Your task to perform on an android device: Search for sushi restaurants on Maps Image 0: 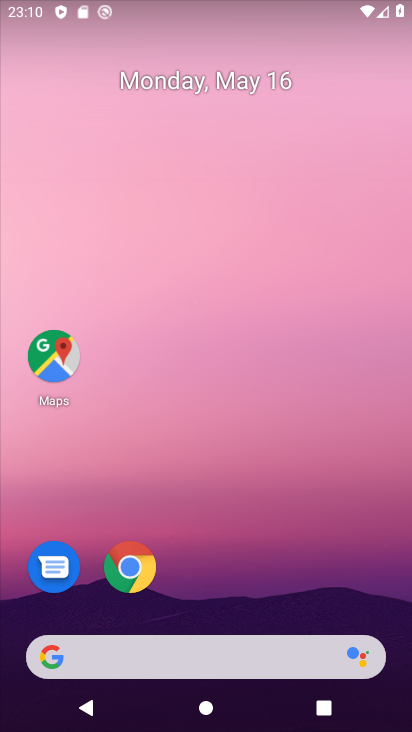
Step 0: click (48, 362)
Your task to perform on an android device: Search for sushi restaurants on Maps Image 1: 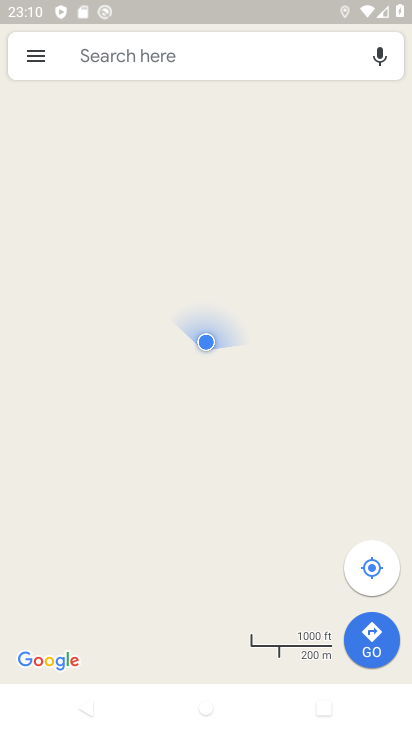
Step 1: click (150, 56)
Your task to perform on an android device: Search for sushi restaurants on Maps Image 2: 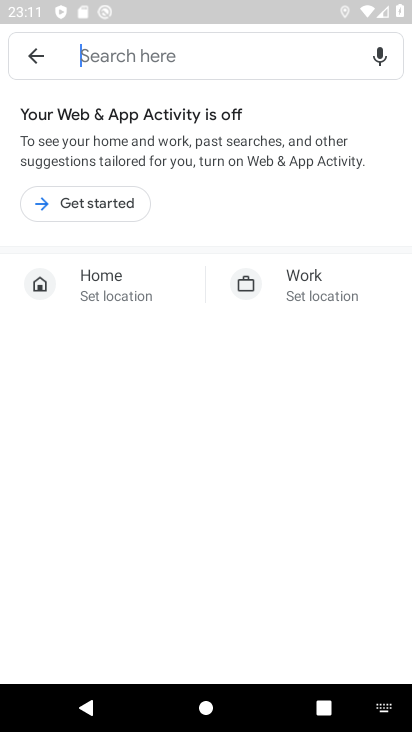
Step 2: click (139, 56)
Your task to perform on an android device: Search for sushi restaurants on Maps Image 3: 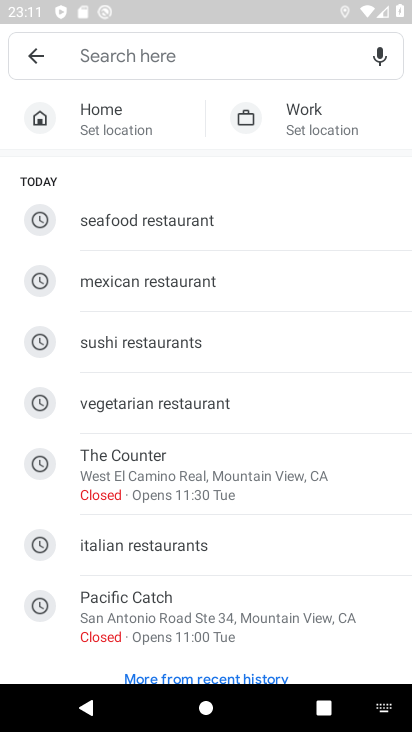
Step 3: click (142, 341)
Your task to perform on an android device: Search for sushi restaurants on Maps Image 4: 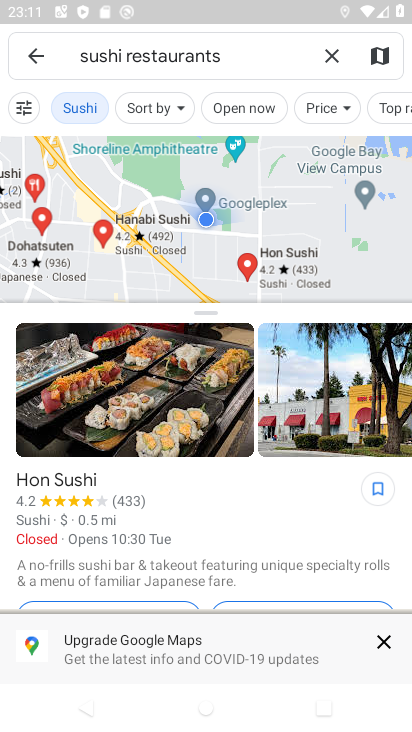
Step 4: task complete